Your task to perform on an android device: Search for seafood restaurants on Google Maps Image 0: 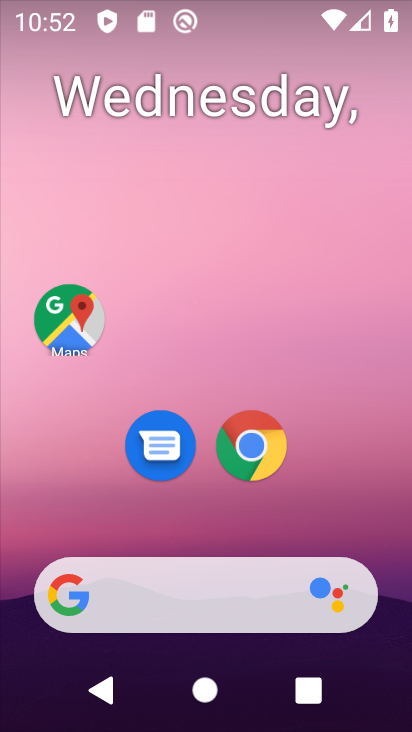
Step 0: click (74, 304)
Your task to perform on an android device: Search for seafood restaurants on Google Maps Image 1: 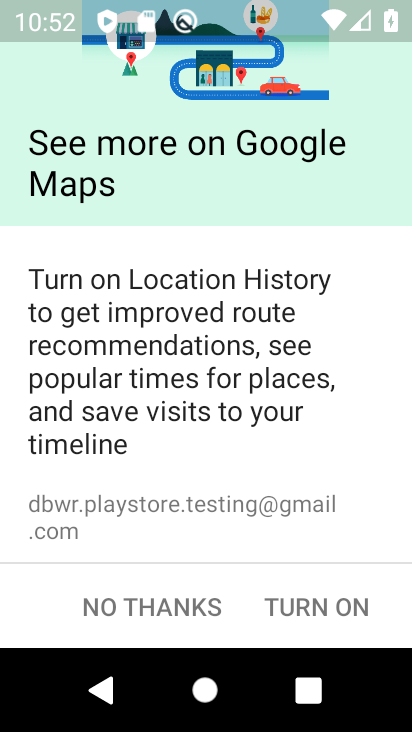
Step 1: click (120, 578)
Your task to perform on an android device: Search for seafood restaurants on Google Maps Image 2: 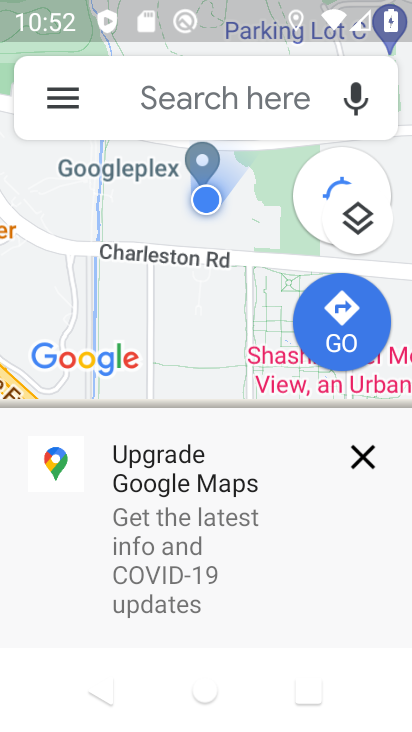
Step 2: click (166, 97)
Your task to perform on an android device: Search for seafood restaurants on Google Maps Image 3: 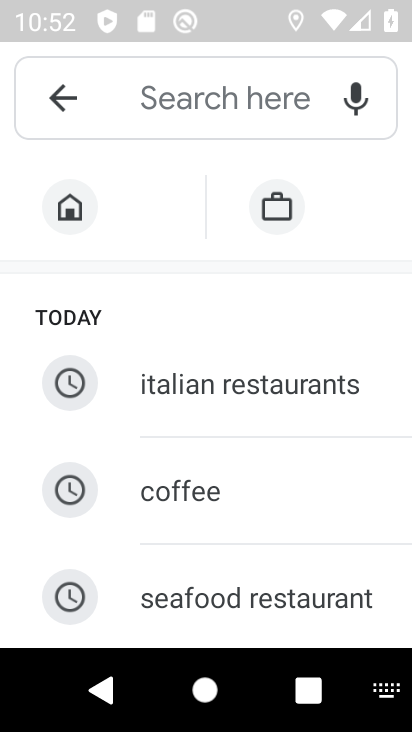
Step 3: click (227, 606)
Your task to perform on an android device: Search for seafood restaurants on Google Maps Image 4: 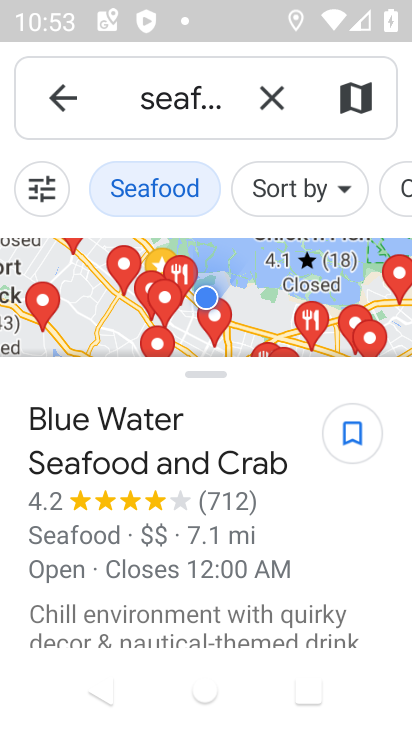
Step 4: task complete